Your task to perform on an android device: What's on my calendar tomorrow? Image 0: 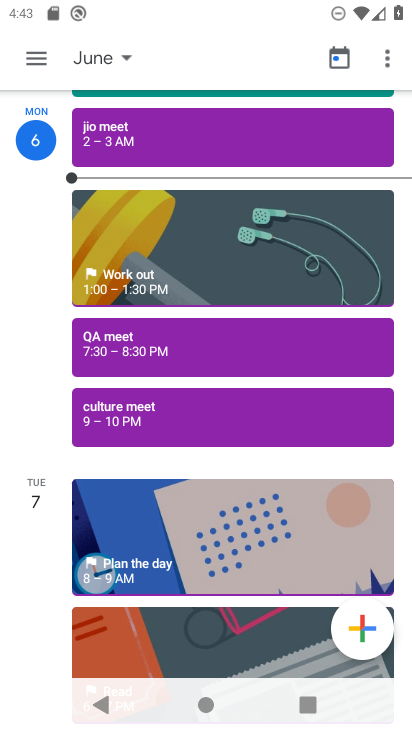
Step 0: drag from (174, 630) to (210, 90)
Your task to perform on an android device: What's on my calendar tomorrow? Image 1: 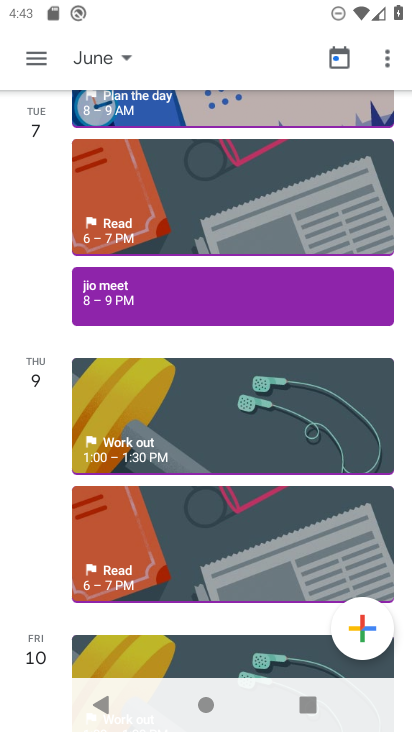
Step 1: press home button
Your task to perform on an android device: What's on my calendar tomorrow? Image 2: 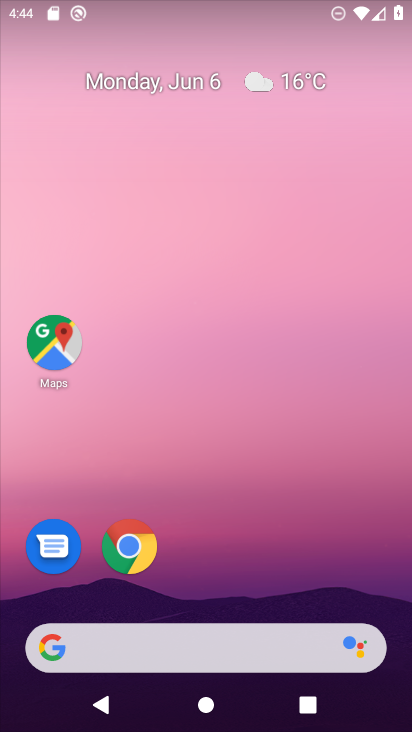
Step 2: drag from (226, 621) to (183, 27)
Your task to perform on an android device: What's on my calendar tomorrow? Image 3: 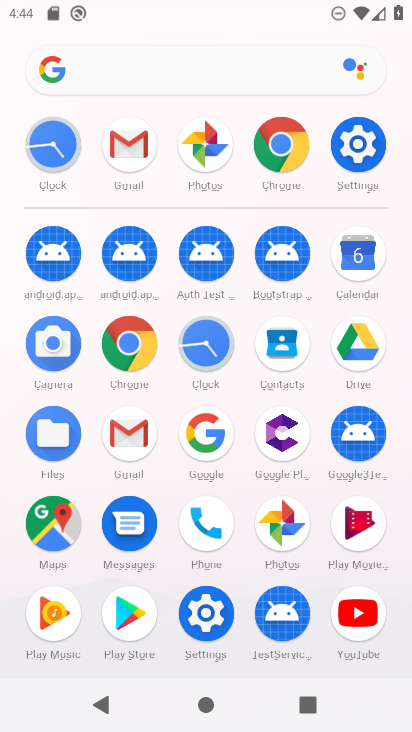
Step 3: click (352, 270)
Your task to perform on an android device: What's on my calendar tomorrow? Image 4: 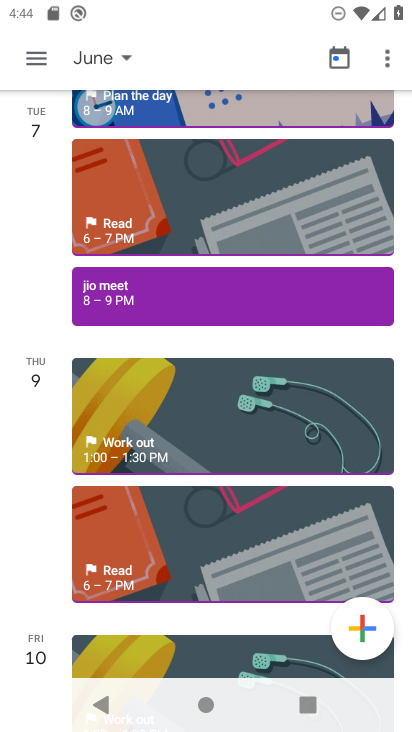
Step 4: click (329, 62)
Your task to perform on an android device: What's on my calendar tomorrow? Image 5: 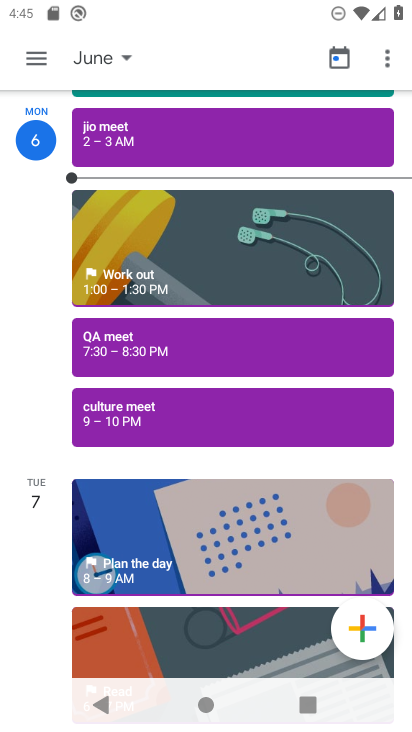
Step 5: click (36, 498)
Your task to perform on an android device: What's on my calendar tomorrow? Image 6: 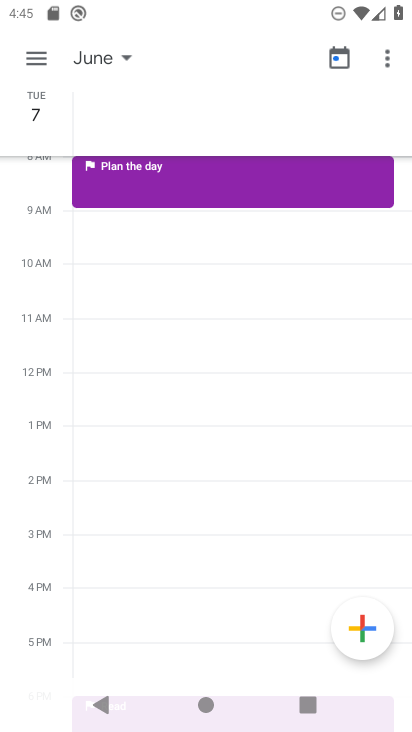
Step 6: task complete